Your task to perform on an android device: set the stopwatch Image 0: 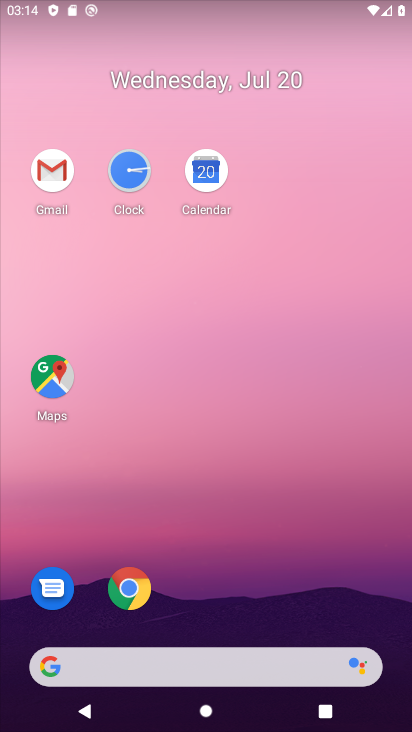
Step 0: click (139, 164)
Your task to perform on an android device: set the stopwatch Image 1: 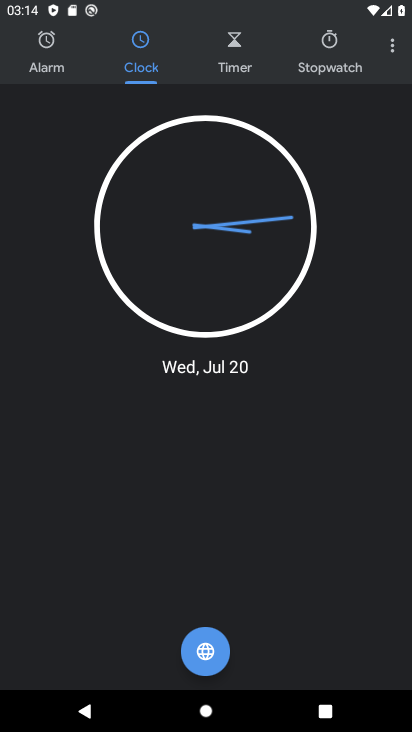
Step 1: click (320, 67)
Your task to perform on an android device: set the stopwatch Image 2: 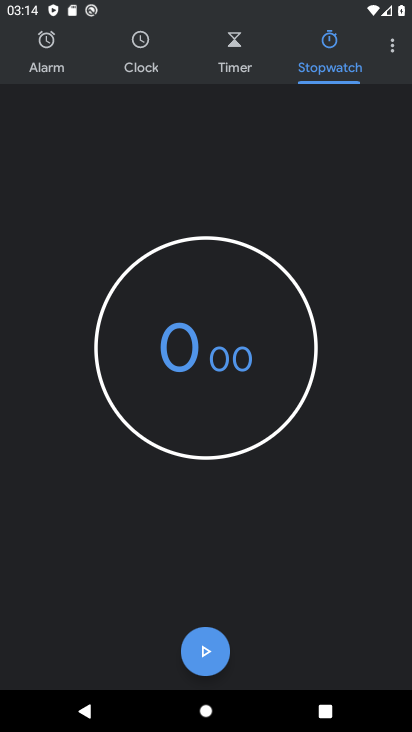
Step 2: click (233, 388)
Your task to perform on an android device: set the stopwatch Image 3: 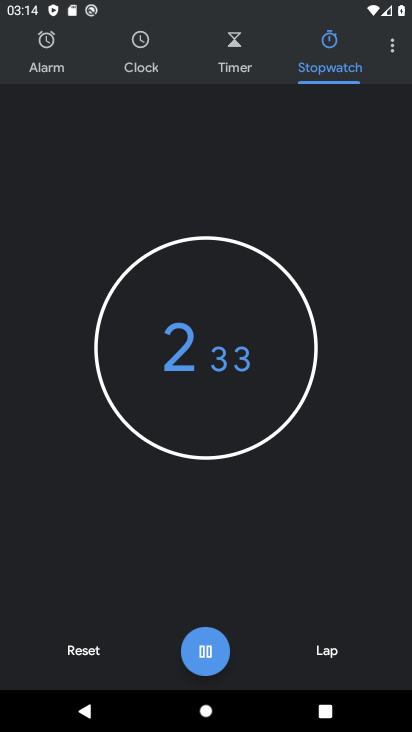
Step 3: task complete